Your task to perform on an android device: empty trash in google photos Image 0: 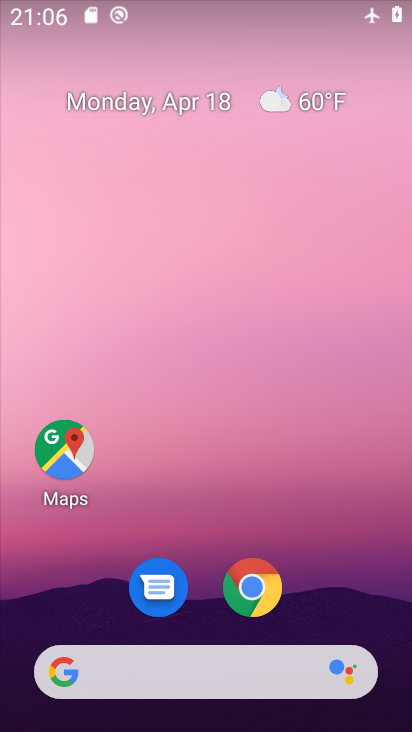
Step 0: drag from (354, 610) to (291, 139)
Your task to perform on an android device: empty trash in google photos Image 1: 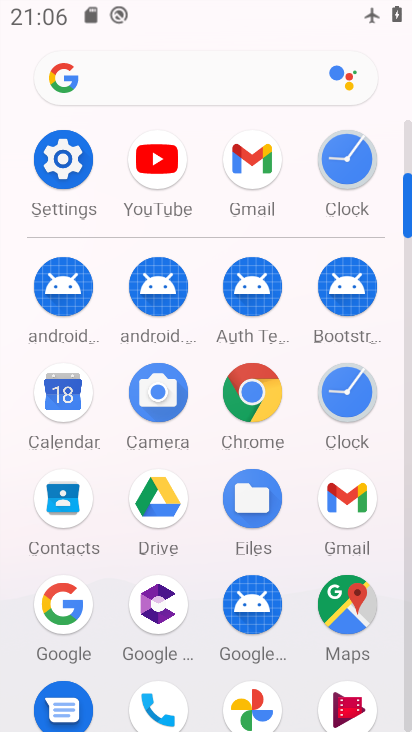
Step 1: click (258, 700)
Your task to perform on an android device: empty trash in google photos Image 2: 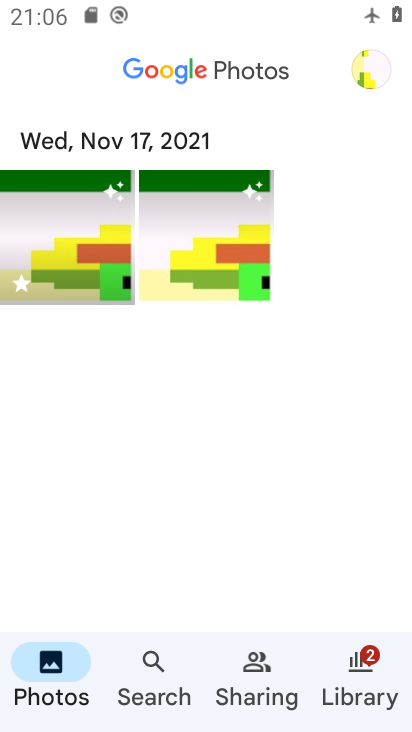
Step 2: click (364, 58)
Your task to perform on an android device: empty trash in google photos Image 3: 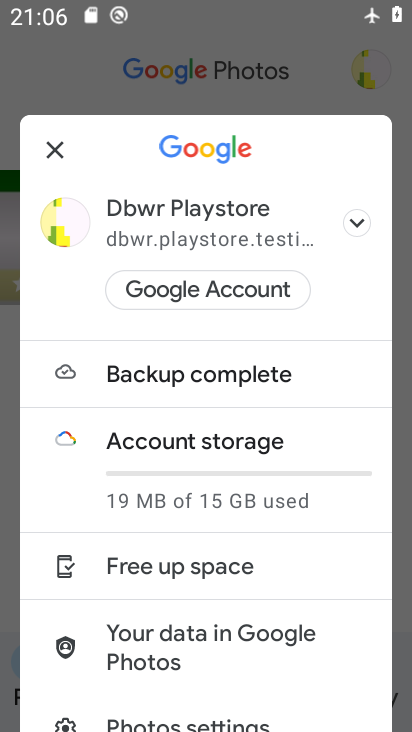
Step 3: task complete